Your task to perform on an android device: clear all cookies in the chrome app Image 0: 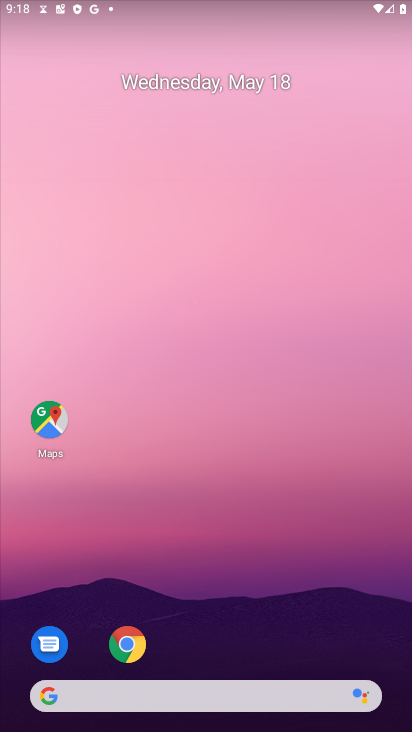
Step 0: click (129, 645)
Your task to perform on an android device: clear all cookies in the chrome app Image 1: 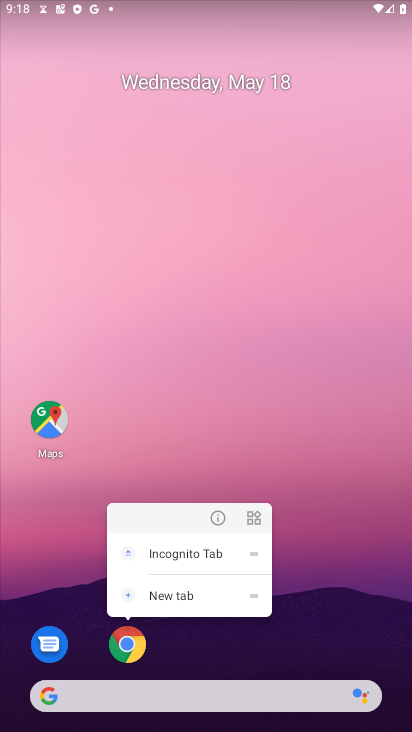
Step 1: click (129, 645)
Your task to perform on an android device: clear all cookies in the chrome app Image 2: 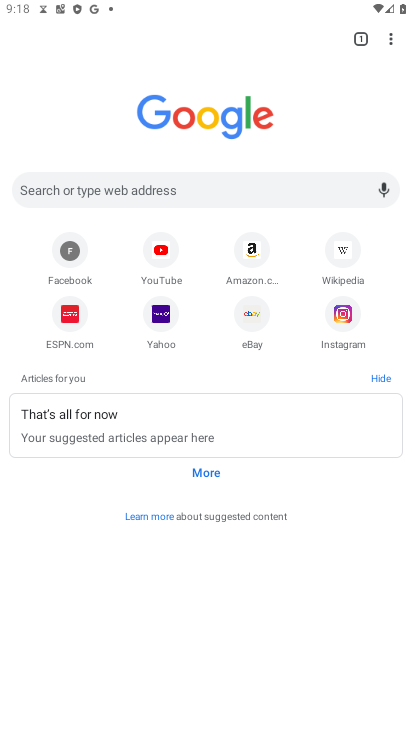
Step 2: click (391, 38)
Your task to perform on an android device: clear all cookies in the chrome app Image 3: 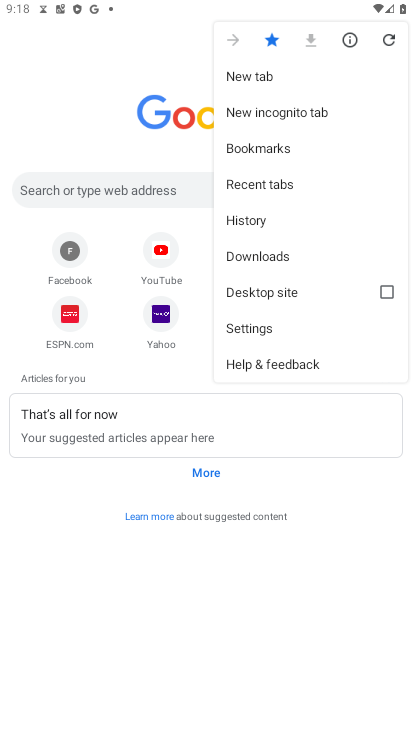
Step 3: click (259, 326)
Your task to perform on an android device: clear all cookies in the chrome app Image 4: 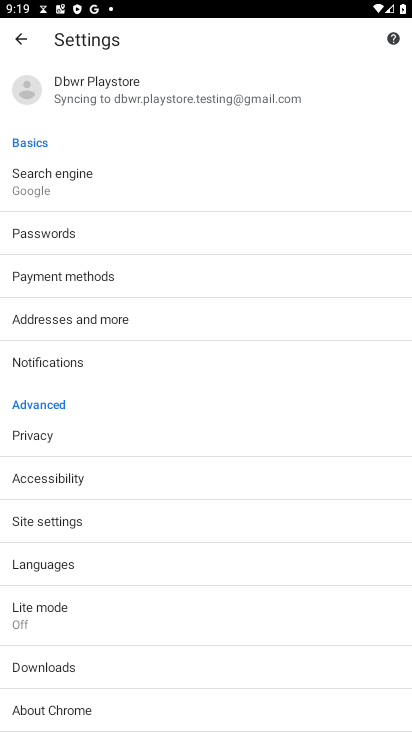
Step 4: click (14, 430)
Your task to perform on an android device: clear all cookies in the chrome app Image 5: 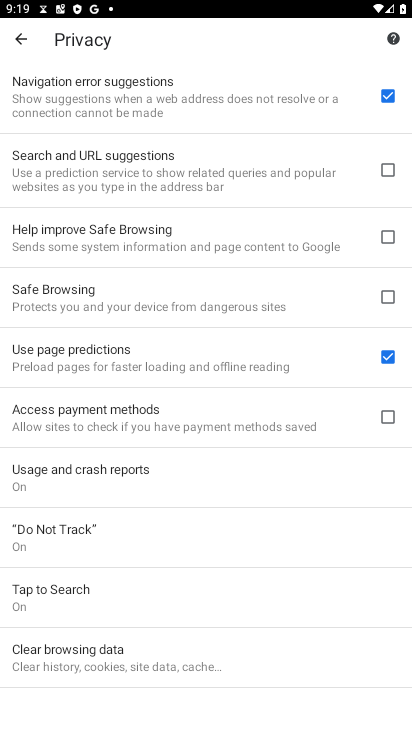
Step 5: click (102, 657)
Your task to perform on an android device: clear all cookies in the chrome app Image 6: 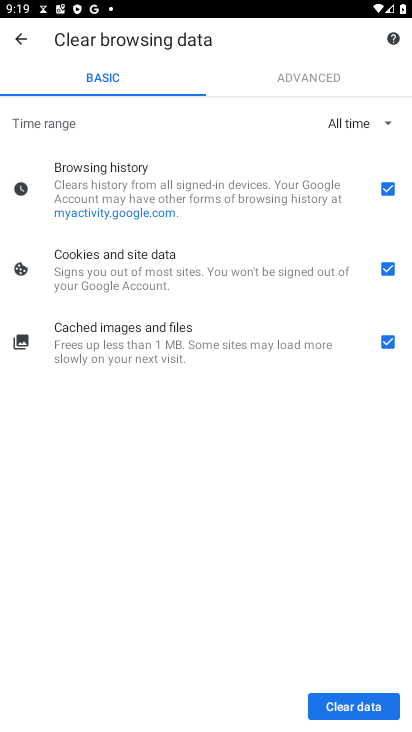
Step 6: click (382, 338)
Your task to perform on an android device: clear all cookies in the chrome app Image 7: 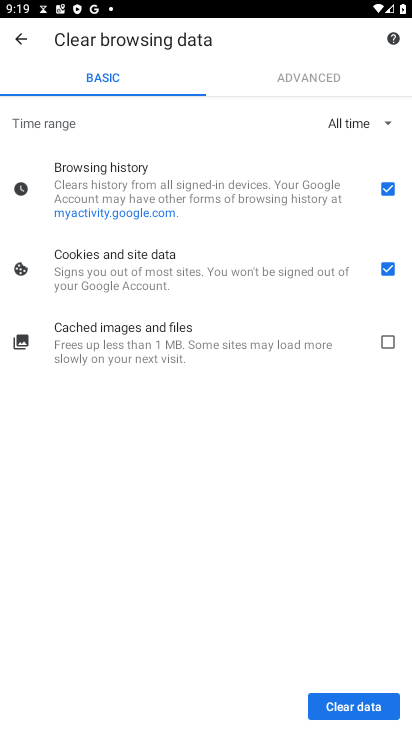
Step 7: click (393, 172)
Your task to perform on an android device: clear all cookies in the chrome app Image 8: 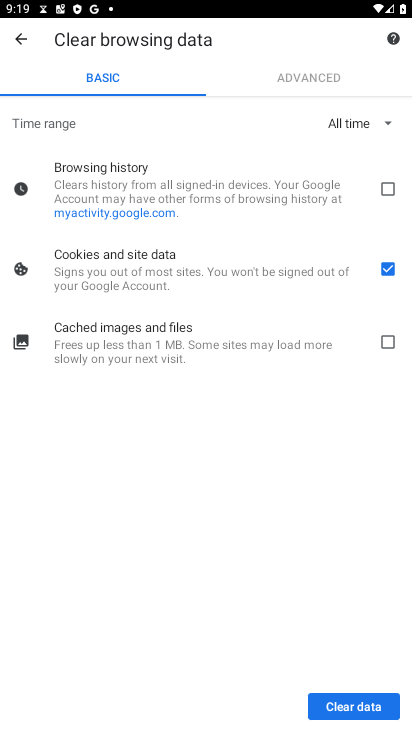
Step 8: click (354, 696)
Your task to perform on an android device: clear all cookies in the chrome app Image 9: 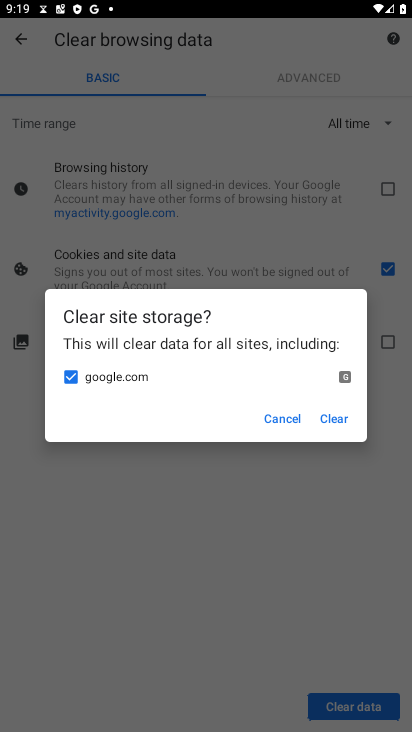
Step 9: click (318, 423)
Your task to perform on an android device: clear all cookies in the chrome app Image 10: 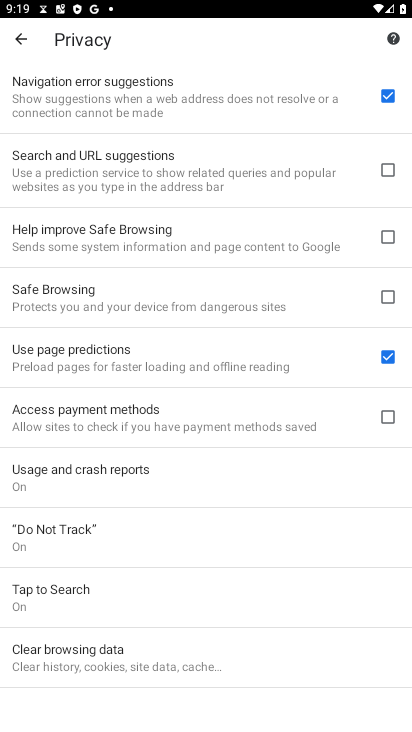
Step 10: task complete